Your task to perform on an android device: choose inbox layout in the gmail app Image 0: 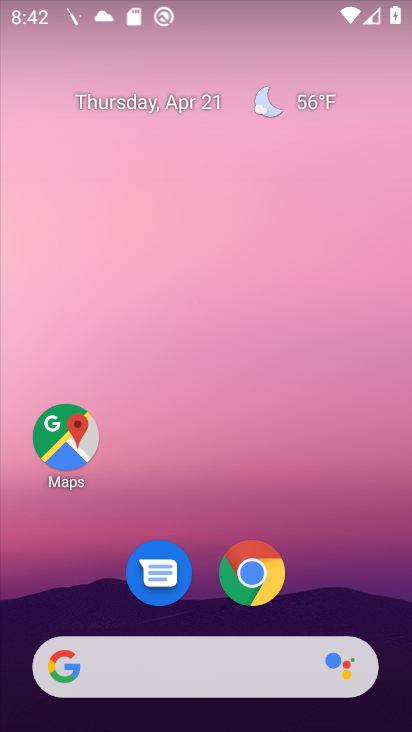
Step 0: drag from (193, 501) to (298, 56)
Your task to perform on an android device: choose inbox layout in the gmail app Image 1: 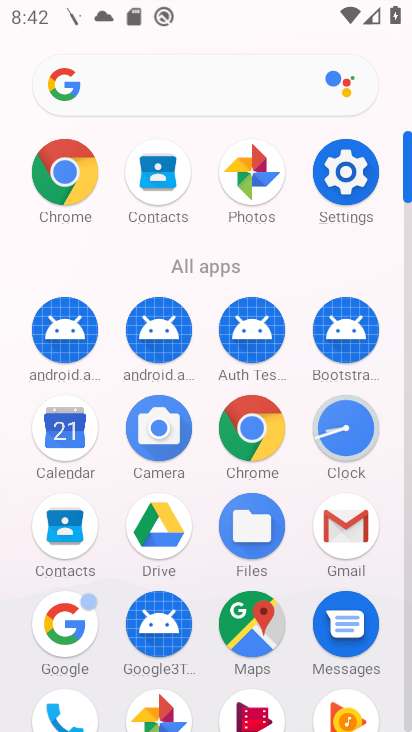
Step 1: click (348, 524)
Your task to perform on an android device: choose inbox layout in the gmail app Image 2: 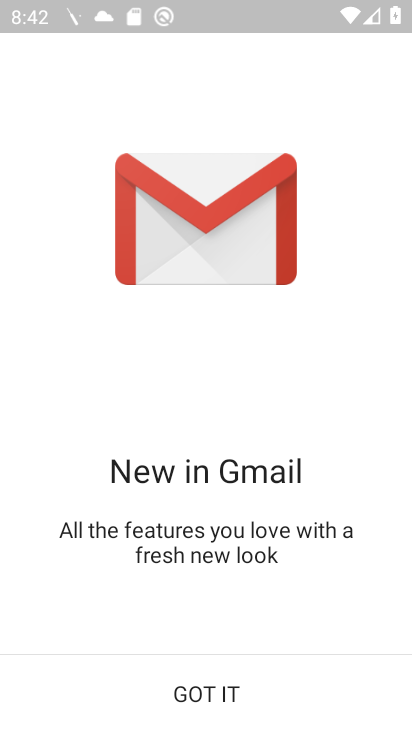
Step 2: click (210, 691)
Your task to perform on an android device: choose inbox layout in the gmail app Image 3: 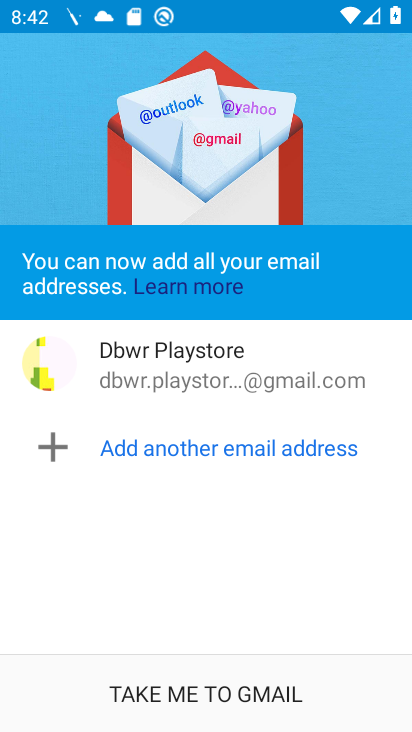
Step 3: click (210, 691)
Your task to perform on an android device: choose inbox layout in the gmail app Image 4: 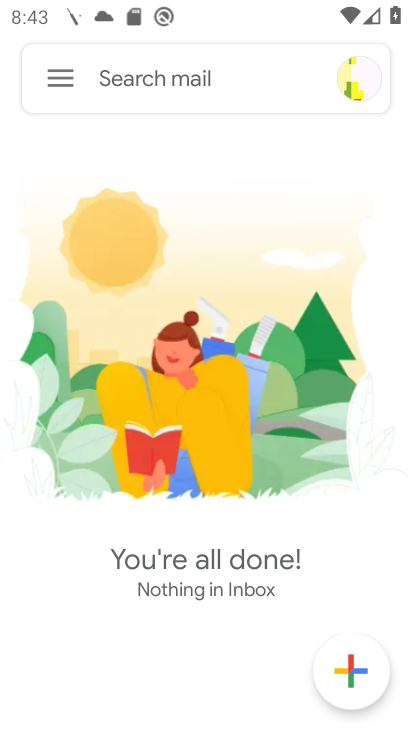
Step 4: click (63, 81)
Your task to perform on an android device: choose inbox layout in the gmail app Image 5: 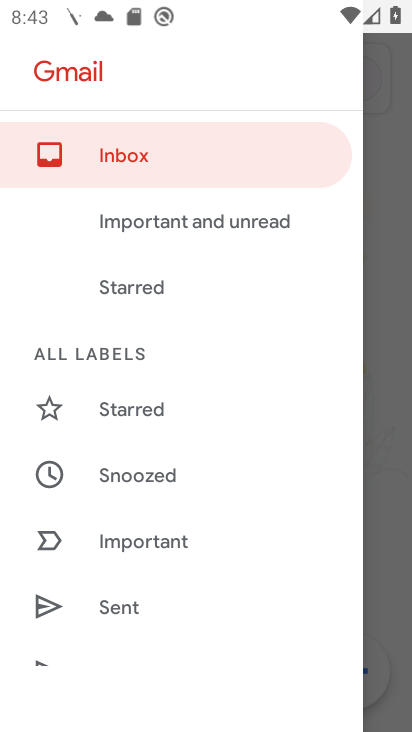
Step 5: drag from (191, 431) to (242, 343)
Your task to perform on an android device: choose inbox layout in the gmail app Image 6: 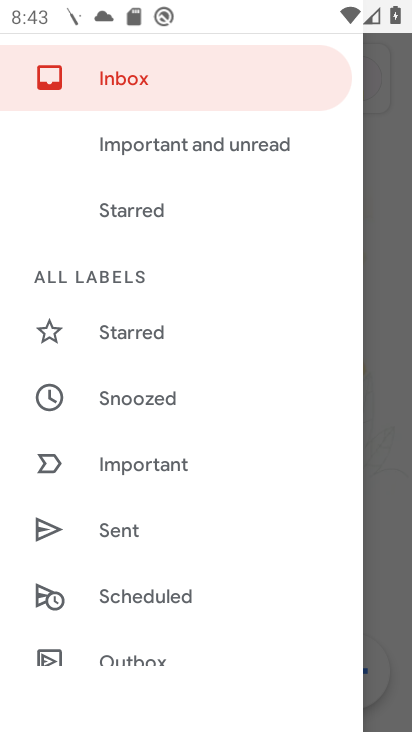
Step 6: drag from (182, 491) to (251, 402)
Your task to perform on an android device: choose inbox layout in the gmail app Image 7: 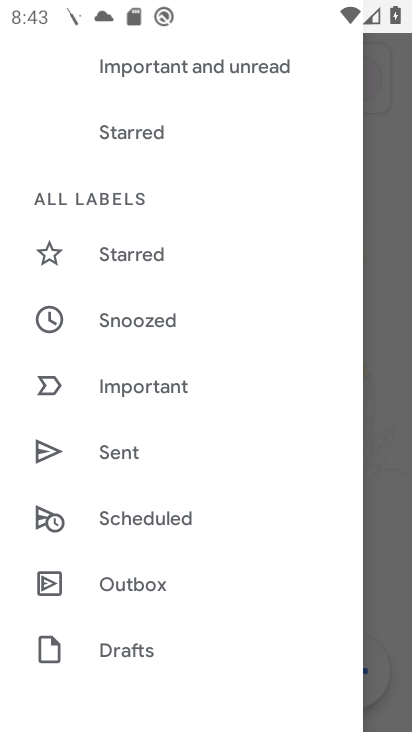
Step 7: drag from (196, 446) to (212, 384)
Your task to perform on an android device: choose inbox layout in the gmail app Image 8: 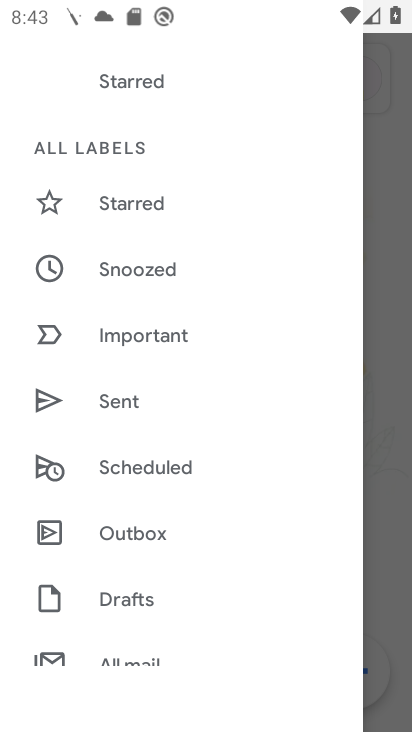
Step 8: drag from (157, 491) to (206, 418)
Your task to perform on an android device: choose inbox layout in the gmail app Image 9: 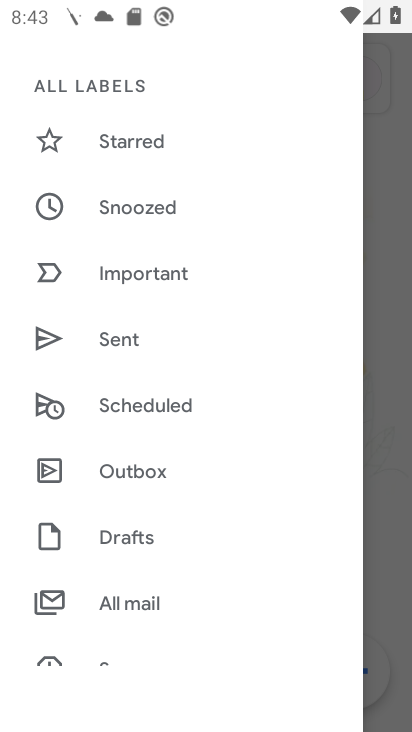
Step 9: drag from (155, 503) to (236, 413)
Your task to perform on an android device: choose inbox layout in the gmail app Image 10: 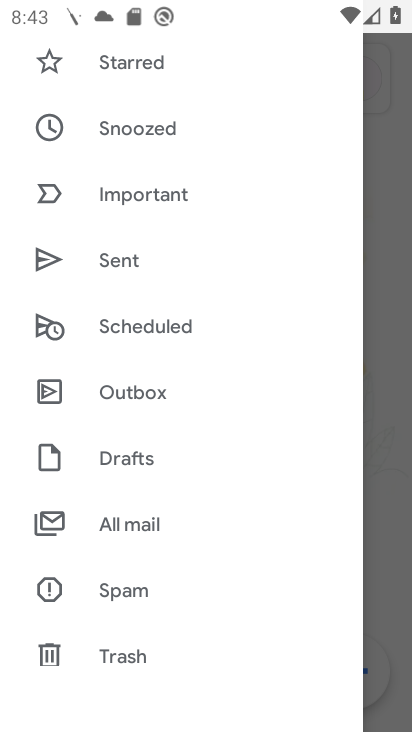
Step 10: drag from (182, 492) to (247, 412)
Your task to perform on an android device: choose inbox layout in the gmail app Image 11: 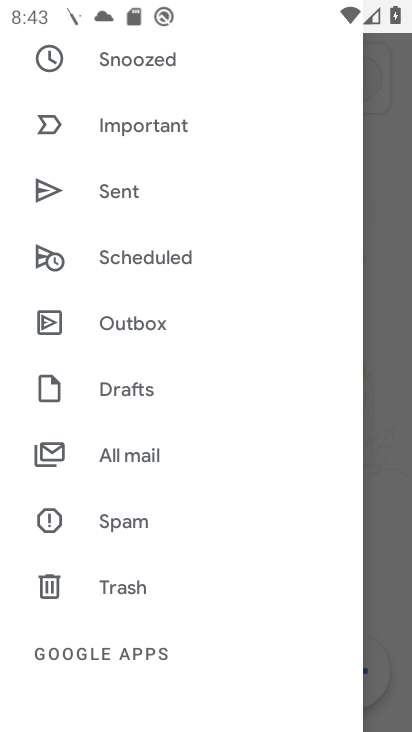
Step 11: drag from (176, 500) to (253, 407)
Your task to perform on an android device: choose inbox layout in the gmail app Image 12: 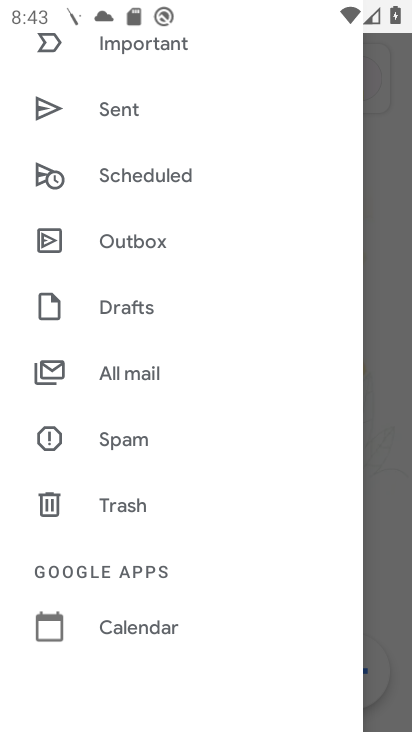
Step 12: drag from (180, 498) to (237, 410)
Your task to perform on an android device: choose inbox layout in the gmail app Image 13: 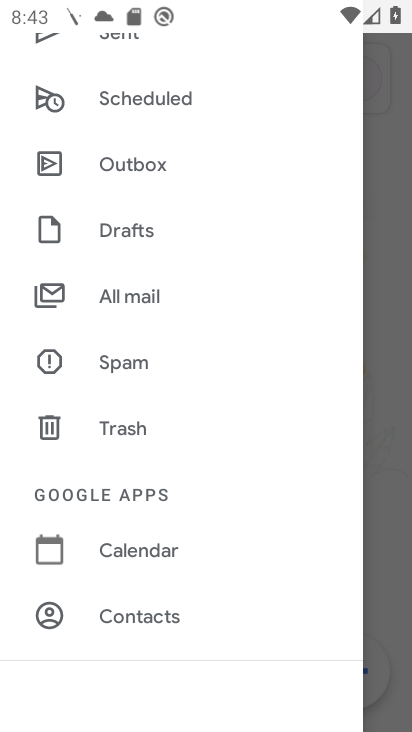
Step 13: drag from (185, 506) to (246, 417)
Your task to perform on an android device: choose inbox layout in the gmail app Image 14: 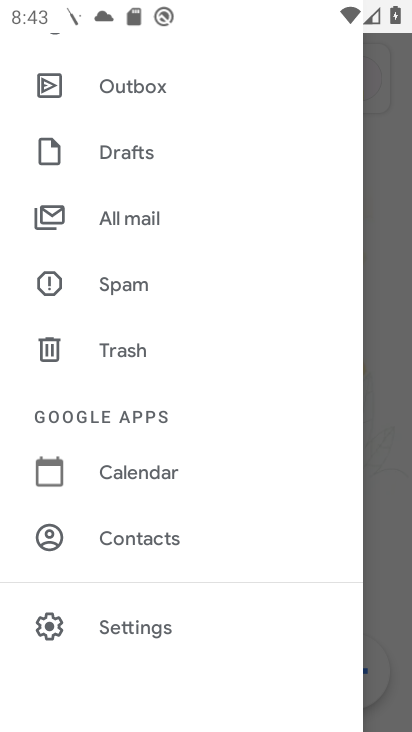
Step 14: click (143, 626)
Your task to perform on an android device: choose inbox layout in the gmail app Image 15: 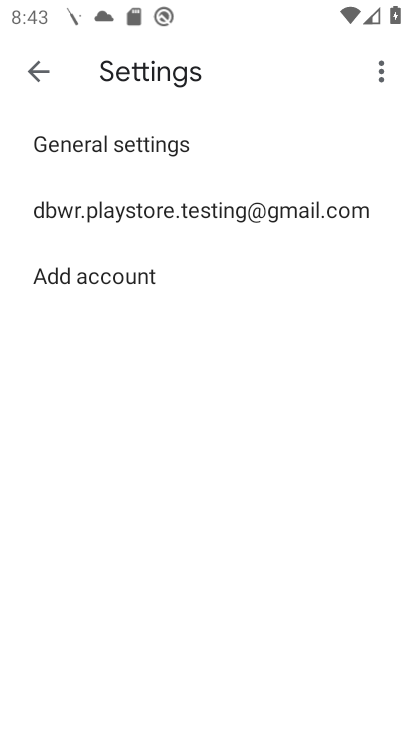
Step 15: click (230, 211)
Your task to perform on an android device: choose inbox layout in the gmail app Image 16: 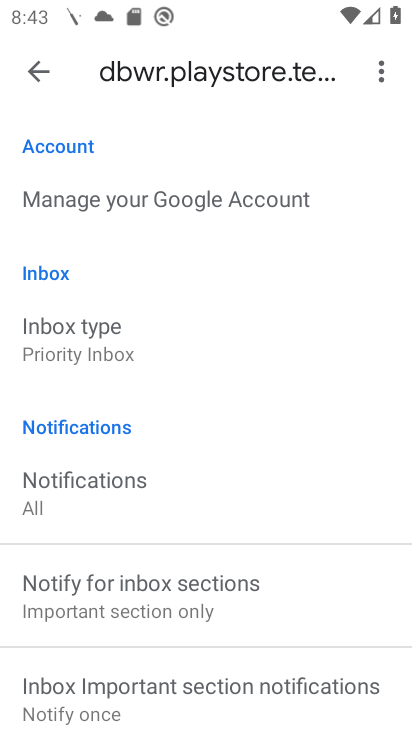
Step 16: click (122, 353)
Your task to perform on an android device: choose inbox layout in the gmail app Image 17: 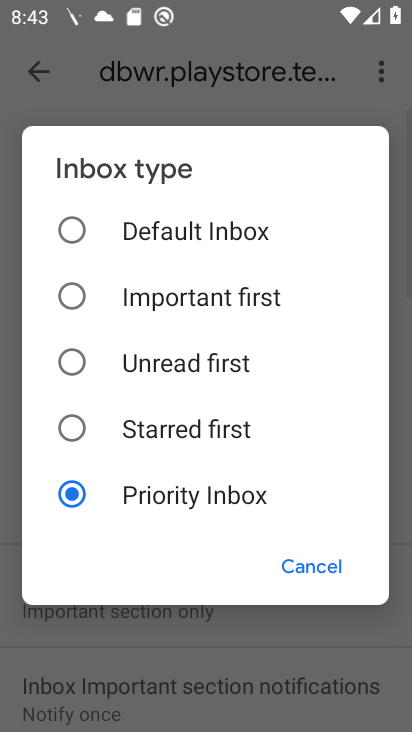
Step 17: click (77, 298)
Your task to perform on an android device: choose inbox layout in the gmail app Image 18: 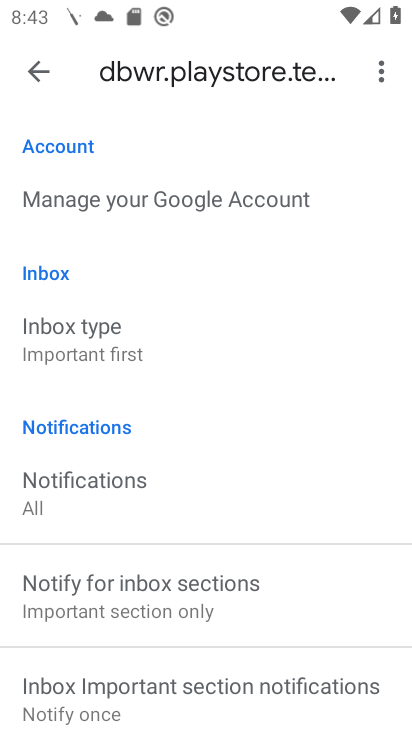
Step 18: task complete